Your task to perform on an android device: turn vacation reply on in the gmail app Image 0: 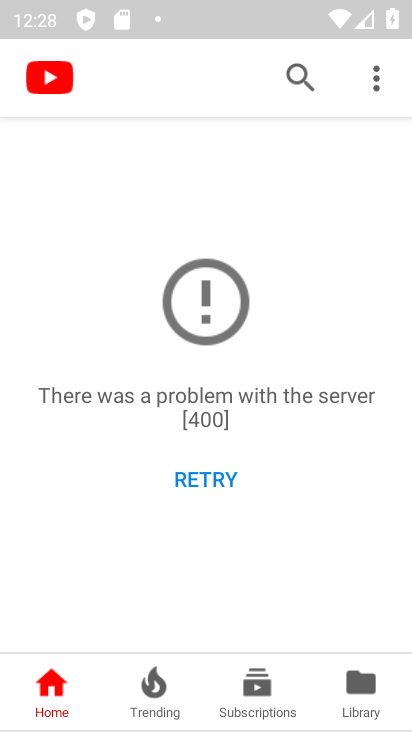
Step 0: press home button
Your task to perform on an android device: turn vacation reply on in the gmail app Image 1: 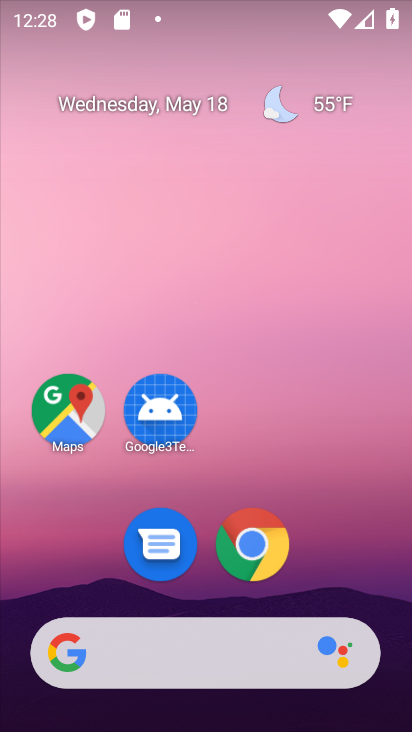
Step 1: drag from (214, 579) to (281, 81)
Your task to perform on an android device: turn vacation reply on in the gmail app Image 2: 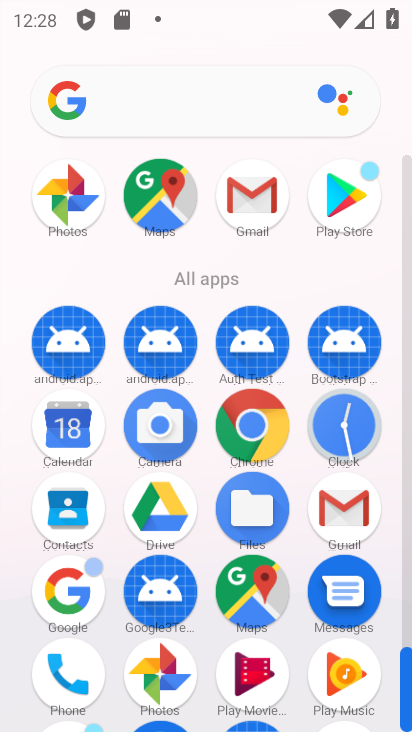
Step 2: click (357, 503)
Your task to perform on an android device: turn vacation reply on in the gmail app Image 3: 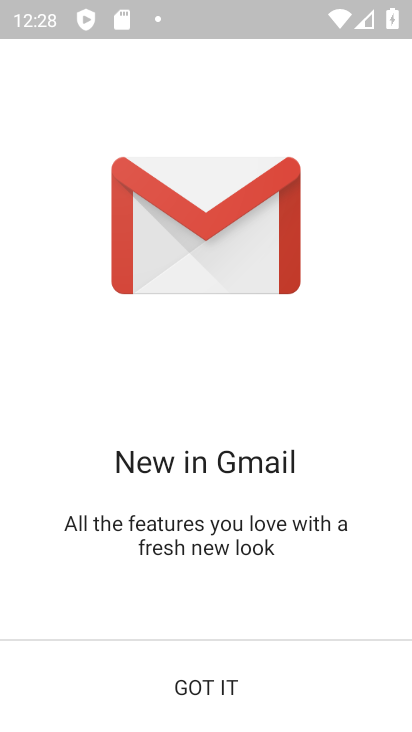
Step 3: click (219, 685)
Your task to perform on an android device: turn vacation reply on in the gmail app Image 4: 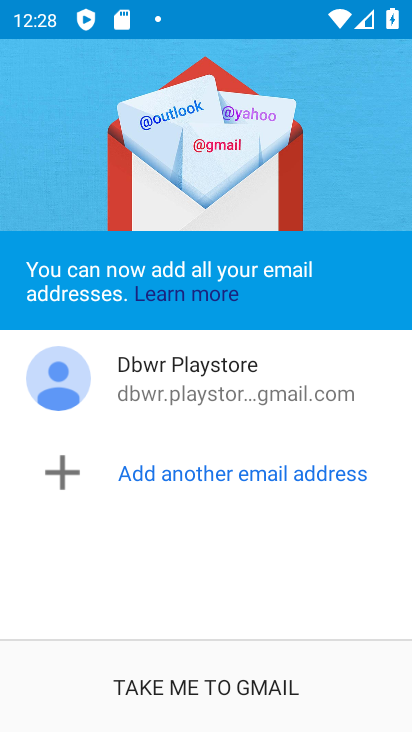
Step 4: click (211, 690)
Your task to perform on an android device: turn vacation reply on in the gmail app Image 5: 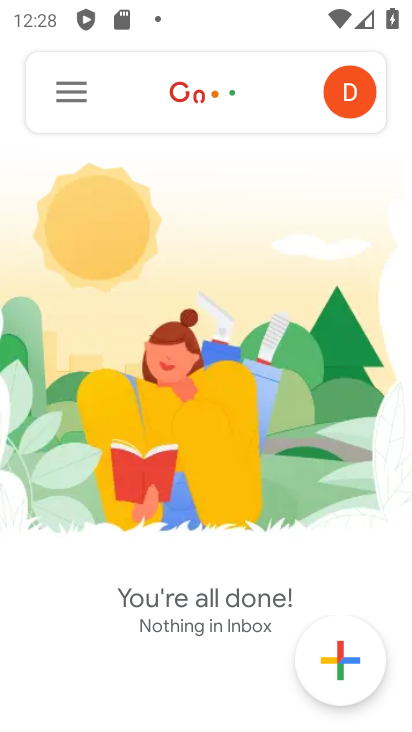
Step 5: click (65, 105)
Your task to perform on an android device: turn vacation reply on in the gmail app Image 6: 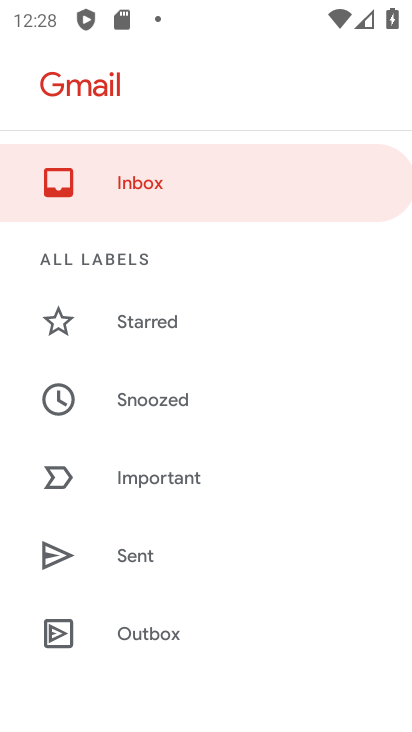
Step 6: drag from (159, 579) to (223, 205)
Your task to perform on an android device: turn vacation reply on in the gmail app Image 7: 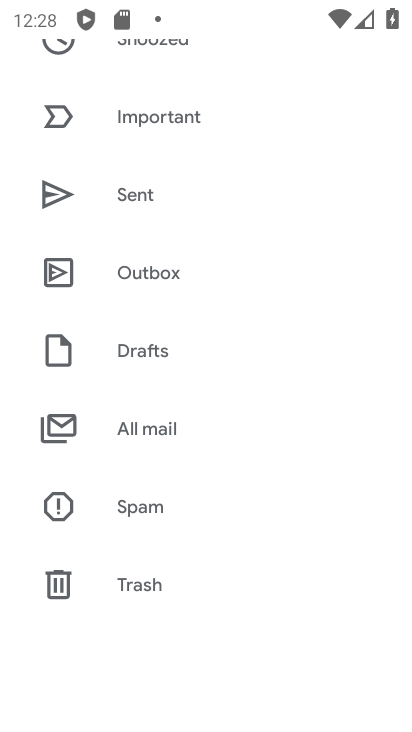
Step 7: drag from (191, 276) to (235, 122)
Your task to perform on an android device: turn vacation reply on in the gmail app Image 8: 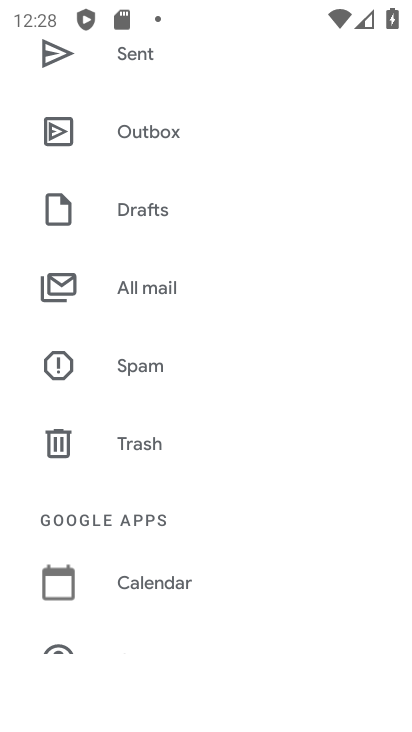
Step 8: drag from (199, 247) to (217, 45)
Your task to perform on an android device: turn vacation reply on in the gmail app Image 9: 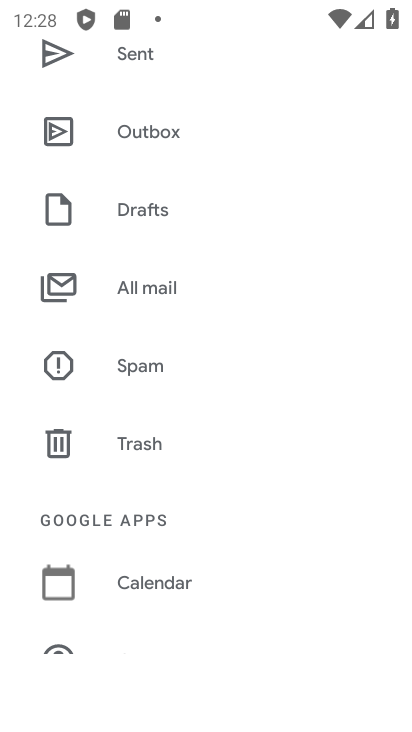
Step 9: drag from (140, 523) to (196, 214)
Your task to perform on an android device: turn vacation reply on in the gmail app Image 10: 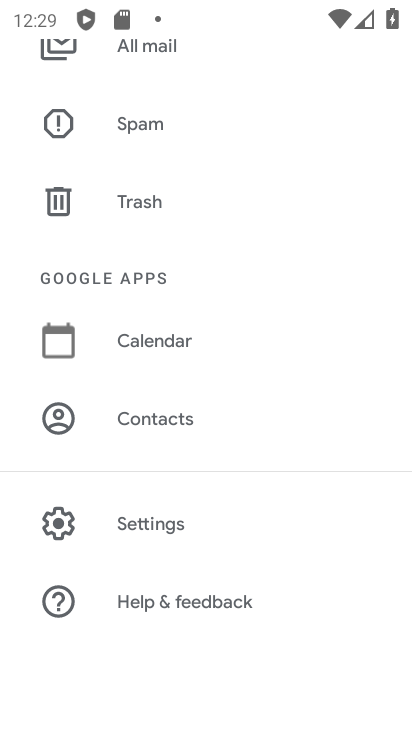
Step 10: drag from (179, 479) to (211, 95)
Your task to perform on an android device: turn vacation reply on in the gmail app Image 11: 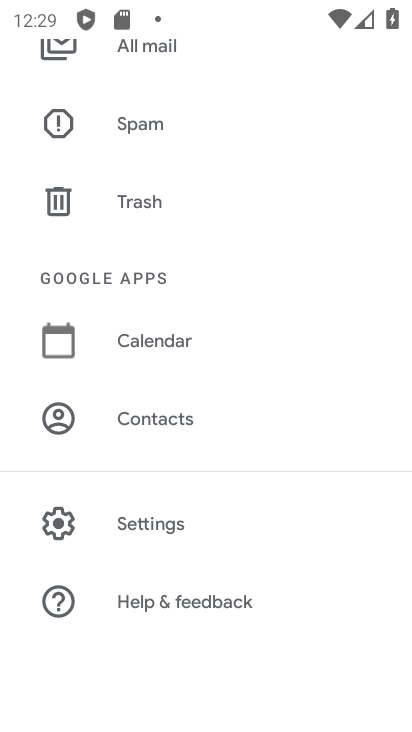
Step 11: click (153, 543)
Your task to perform on an android device: turn vacation reply on in the gmail app Image 12: 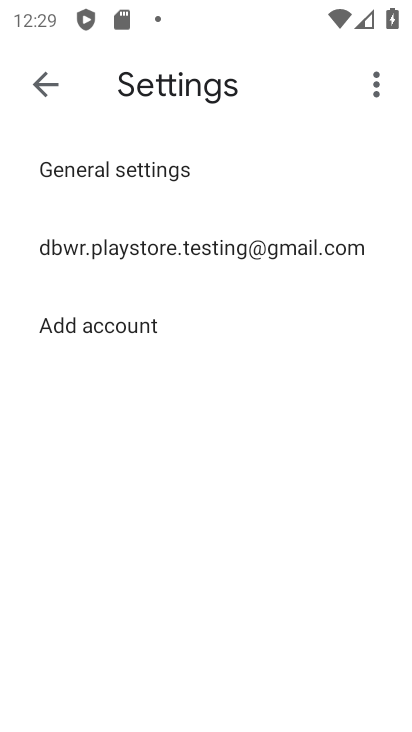
Step 12: click (127, 242)
Your task to perform on an android device: turn vacation reply on in the gmail app Image 13: 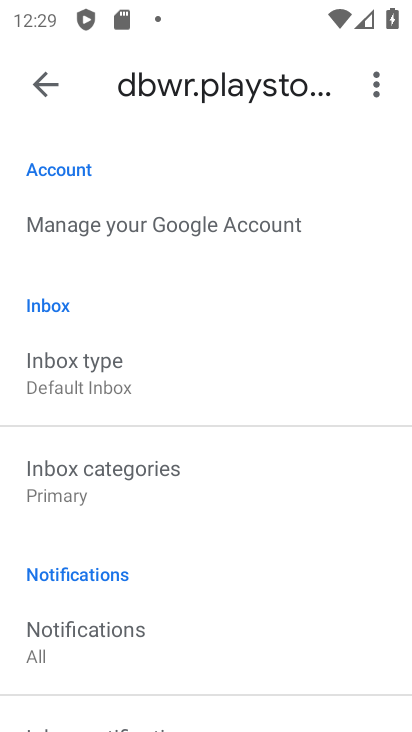
Step 13: drag from (173, 186) to (195, 63)
Your task to perform on an android device: turn vacation reply on in the gmail app Image 14: 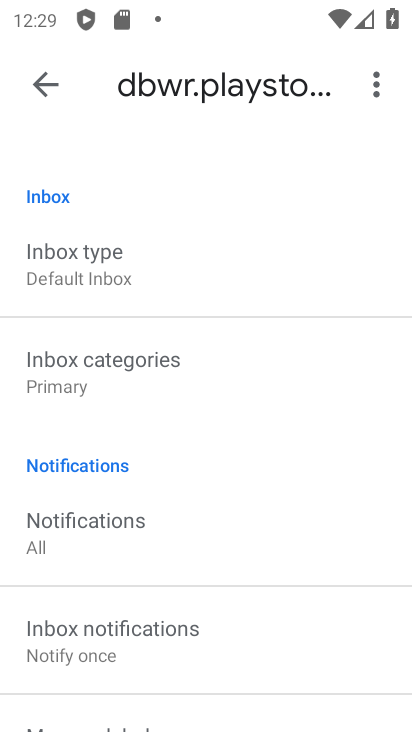
Step 14: drag from (150, 614) to (233, 164)
Your task to perform on an android device: turn vacation reply on in the gmail app Image 15: 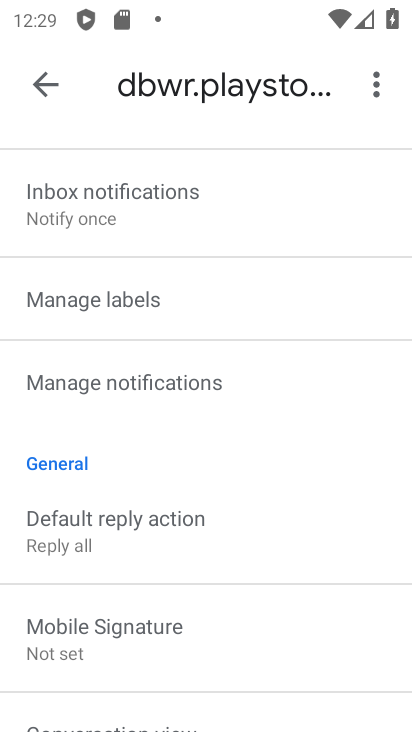
Step 15: drag from (162, 616) to (285, 26)
Your task to perform on an android device: turn vacation reply on in the gmail app Image 16: 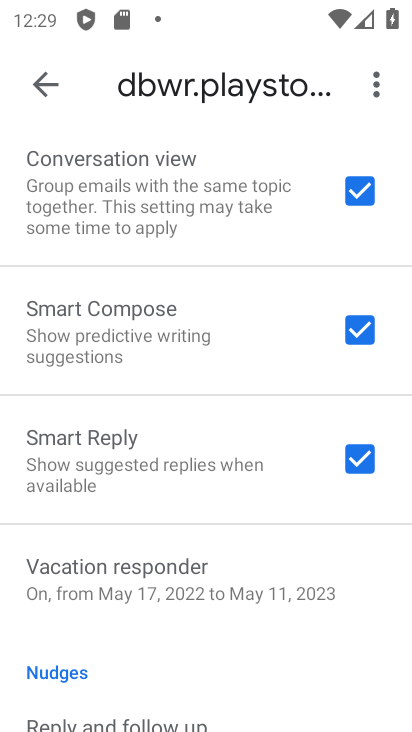
Step 16: click (165, 572)
Your task to perform on an android device: turn vacation reply on in the gmail app Image 17: 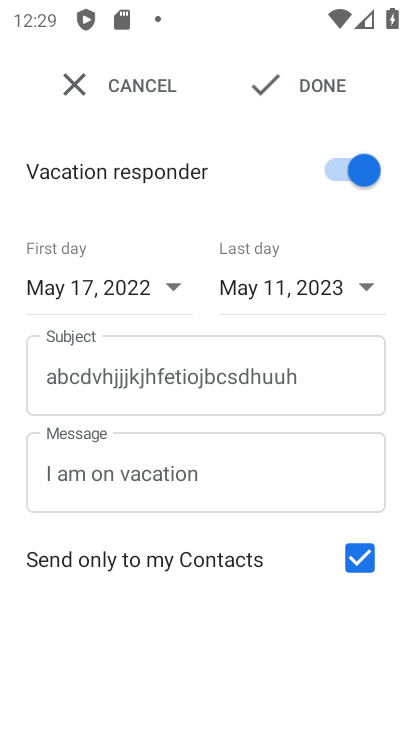
Step 17: task complete